Your task to perform on an android device: Add "alienware aurora" to the cart on walmart.com Image 0: 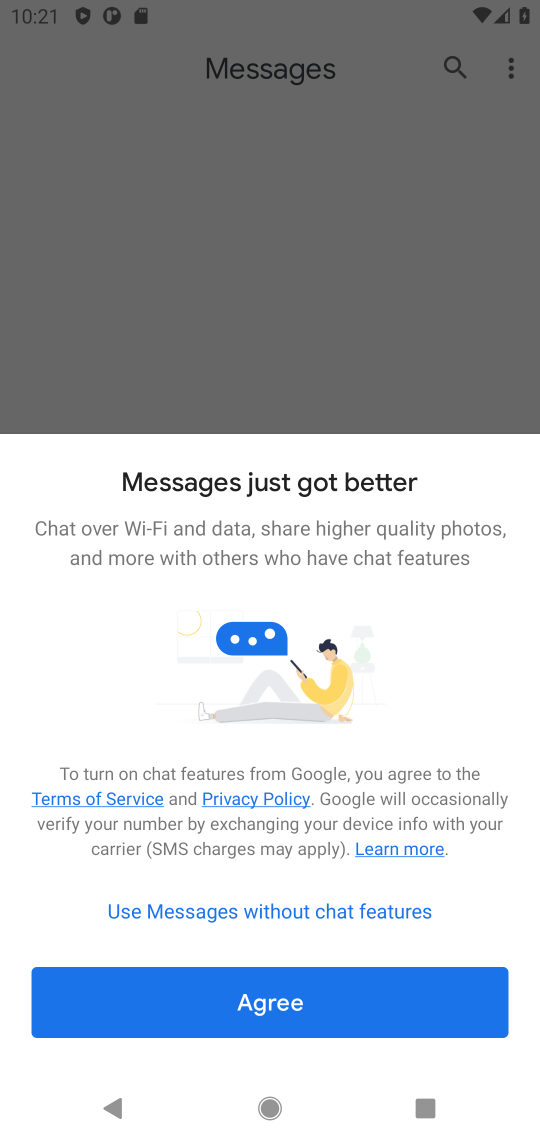
Step 0: press home button
Your task to perform on an android device: Add "alienware aurora" to the cart on walmart.com Image 1: 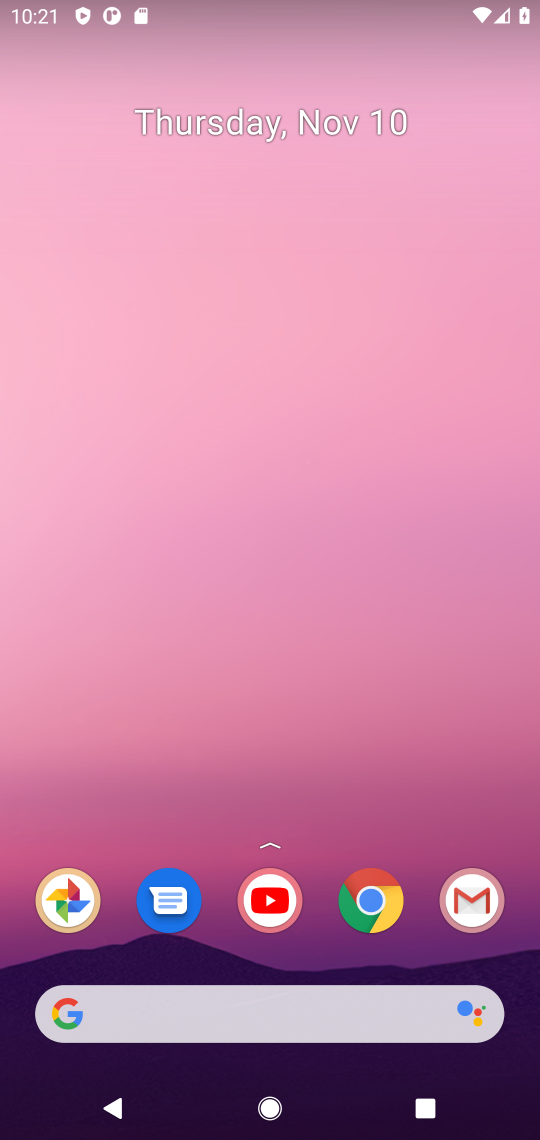
Step 1: click (381, 888)
Your task to perform on an android device: Add "alienware aurora" to the cart on walmart.com Image 2: 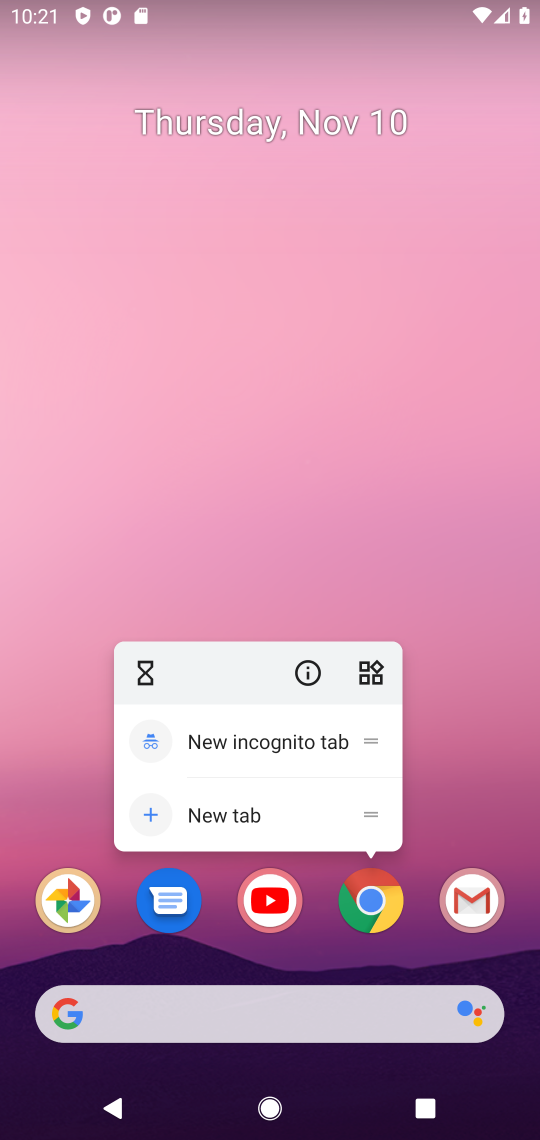
Step 2: click (381, 888)
Your task to perform on an android device: Add "alienware aurora" to the cart on walmart.com Image 3: 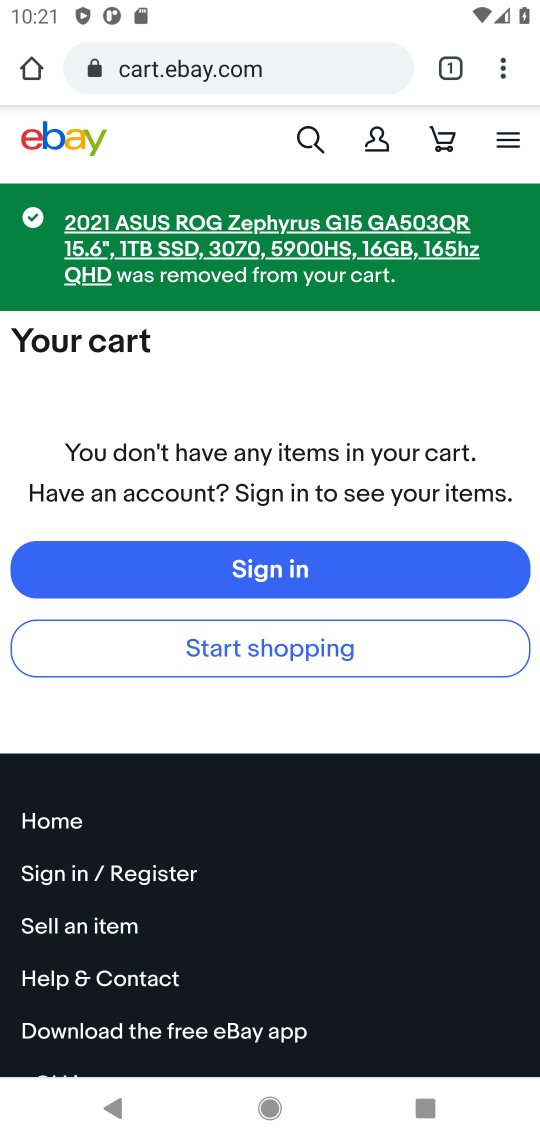
Step 3: click (304, 65)
Your task to perform on an android device: Add "alienware aurora" to the cart on walmart.com Image 4: 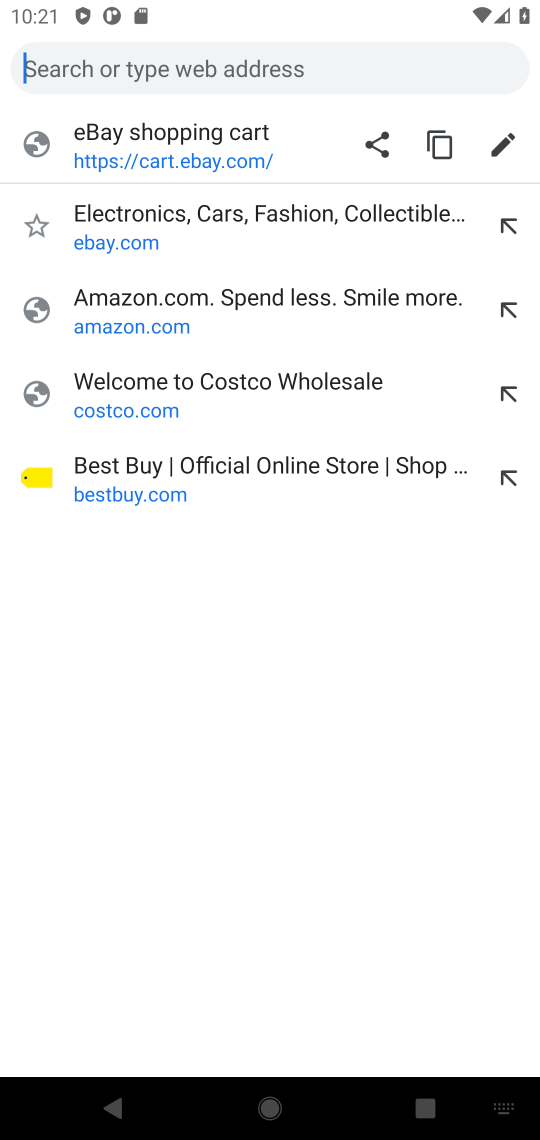
Step 4: type "walmart.com"
Your task to perform on an android device: Add "alienware aurora" to the cart on walmart.com Image 5: 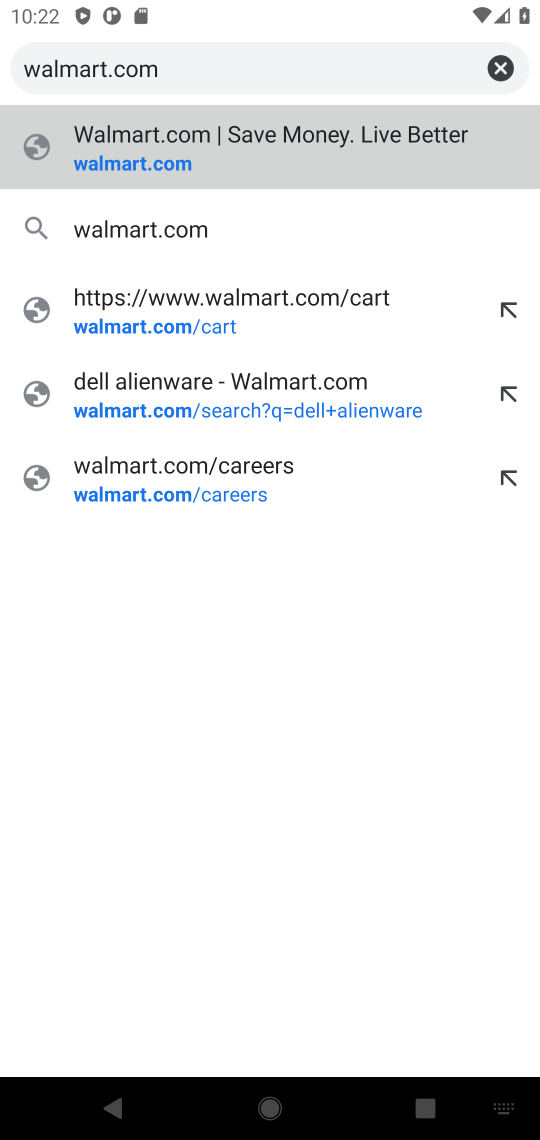
Step 5: press enter
Your task to perform on an android device: Add "alienware aurora" to the cart on walmart.com Image 6: 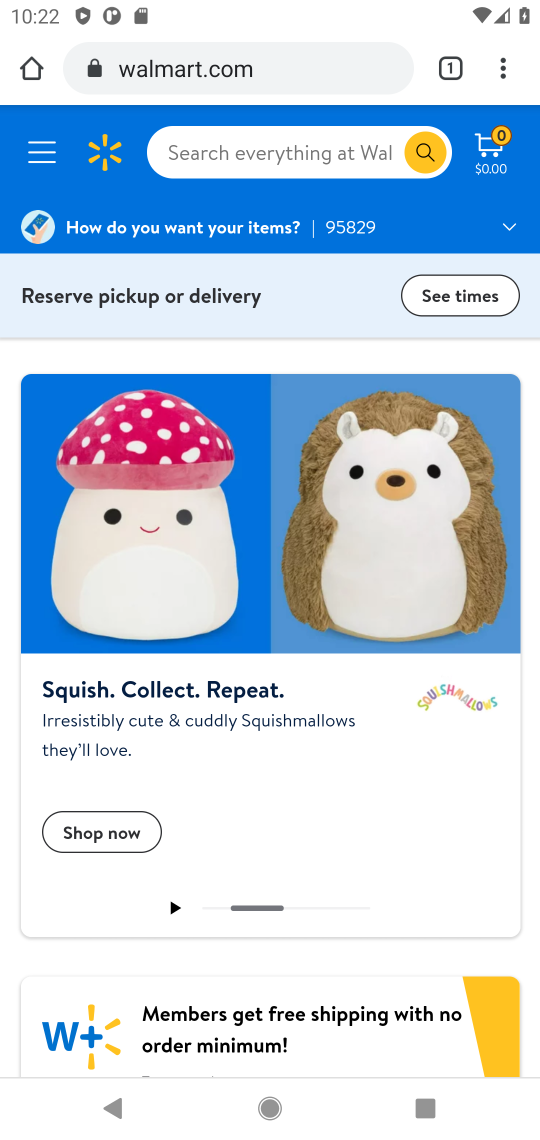
Step 6: click (353, 145)
Your task to perform on an android device: Add "alienware aurora" to the cart on walmart.com Image 7: 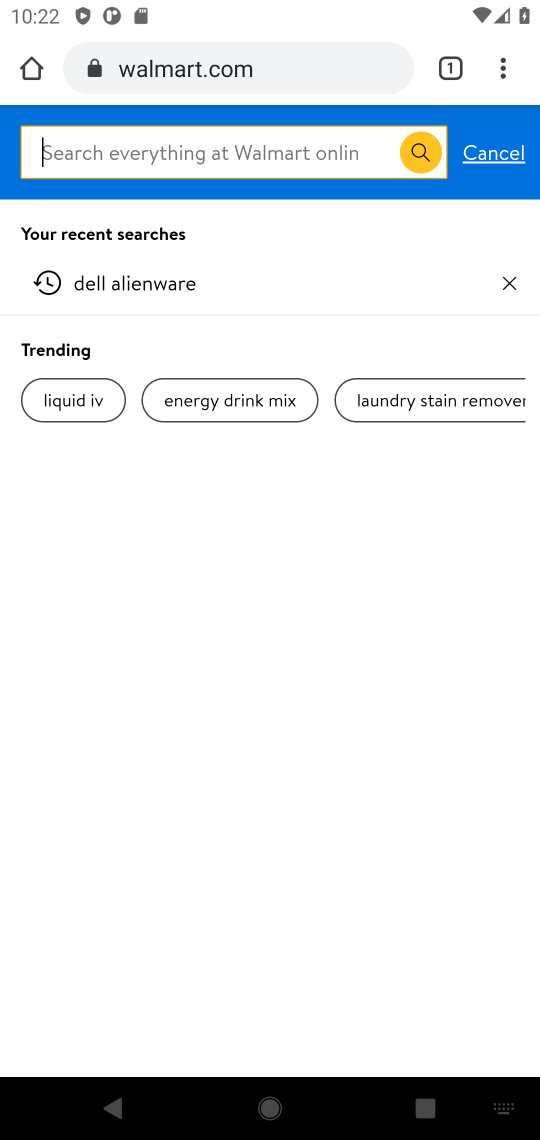
Step 7: type "alienware aurora"
Your task to perform on an android device: Add "alienware aurora" to the cart on walmart.com Image 8: 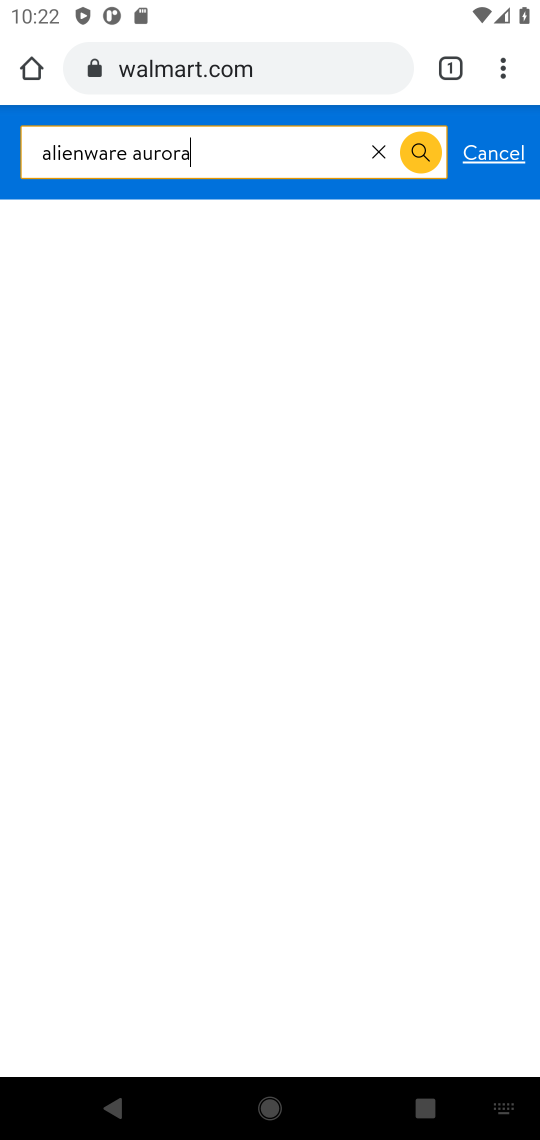
Step 8: press enter
Your task to perform on an android device: Add "alienware aurora" to the cart on walmart.com Image 9: 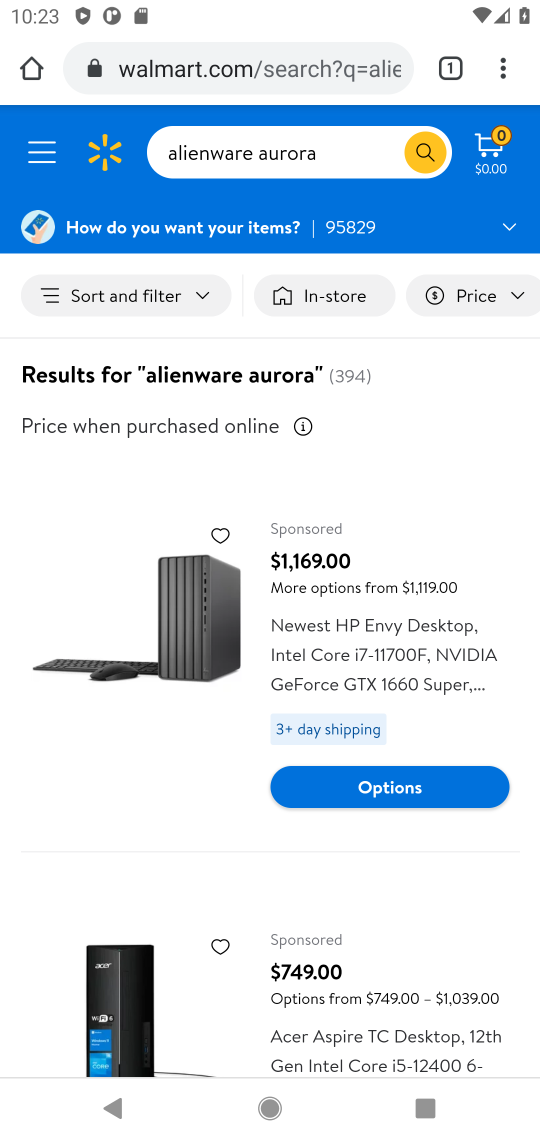
Step 9: task complete